Your task to perform on an android device: add a contact in the contacts app Image 0: 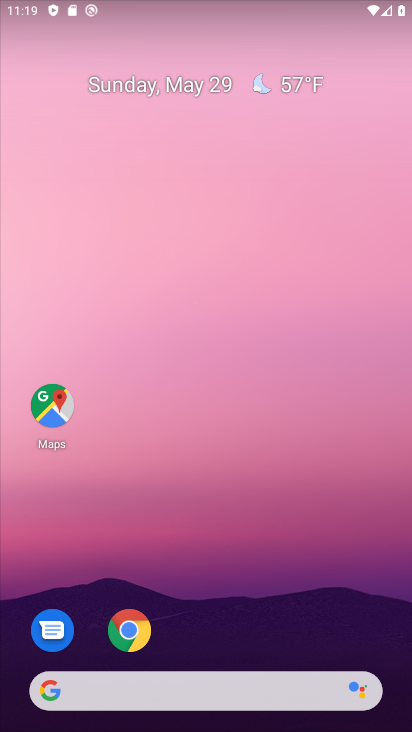
Step 0: drag from (245, 716) to (169, 147)
Your task to perform on an android device: add a contact in the contacts app Image 1: 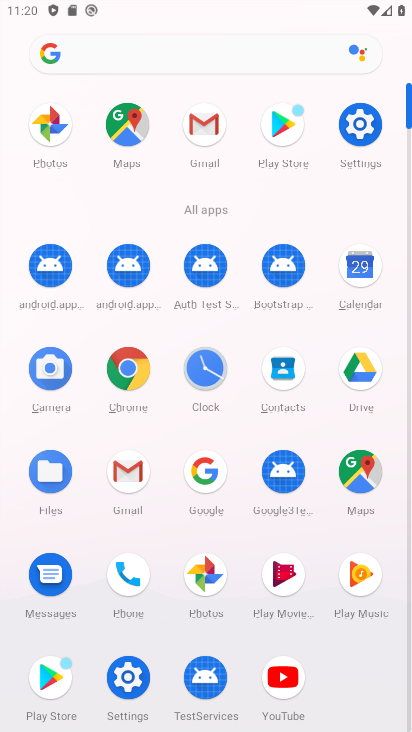
Step 1: click (124, 586)
Your task to perform on an android device: add a contact in the contacts app Image 2: 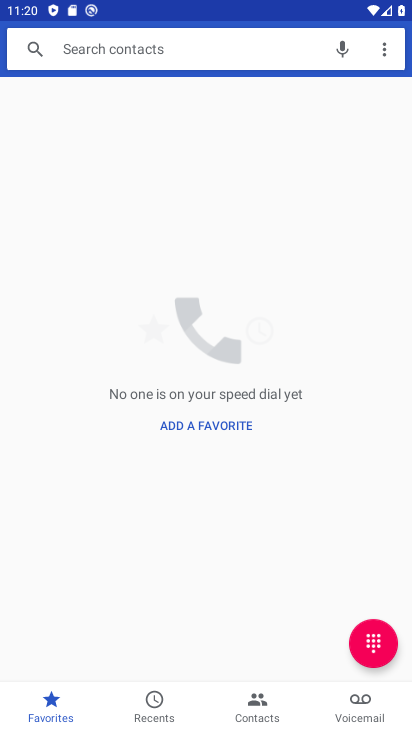
Step 2: click (249, 702)
Your task to perform on an android device: add a contact in the contacts app Image 3: 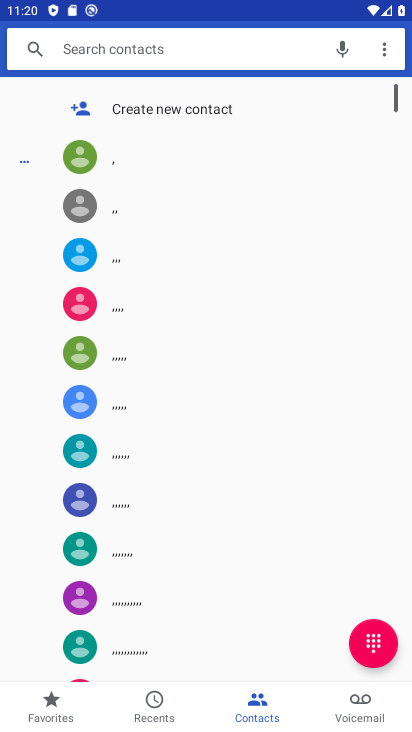
Step 3: click (125, 345)
Your task to perform on an android device: add a contact in the contacts app Image 4: 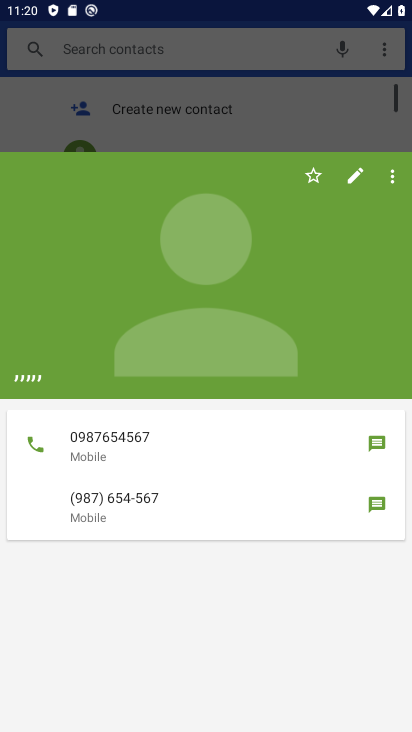
Step 4: press home button
Your task to perform on an android device: add a contact in the contacts app Image 5: 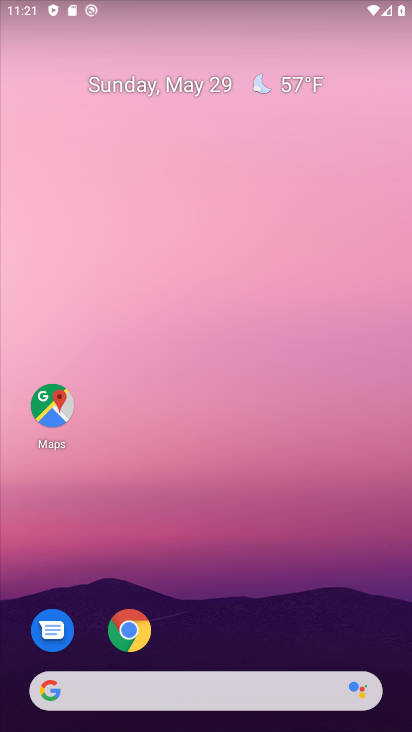
Step 5: drag from (184, 709) to (94, 170)
Your task to perform on an android device: add a contact in the contacts app Image 6: 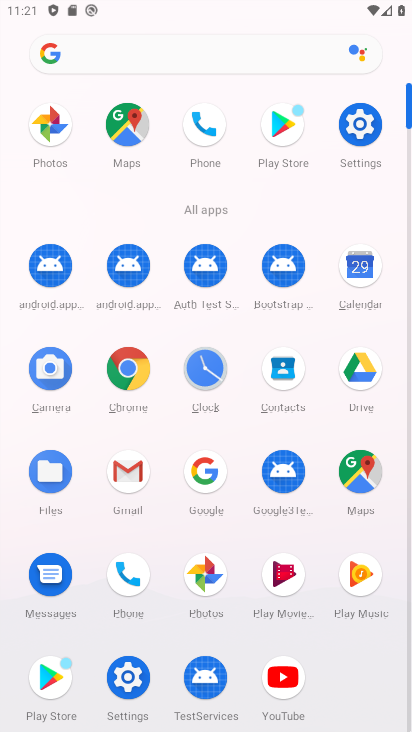
Step 6: click (204, 140)
Your task to perform on an android device: add a contact in the contacts app Image 7: 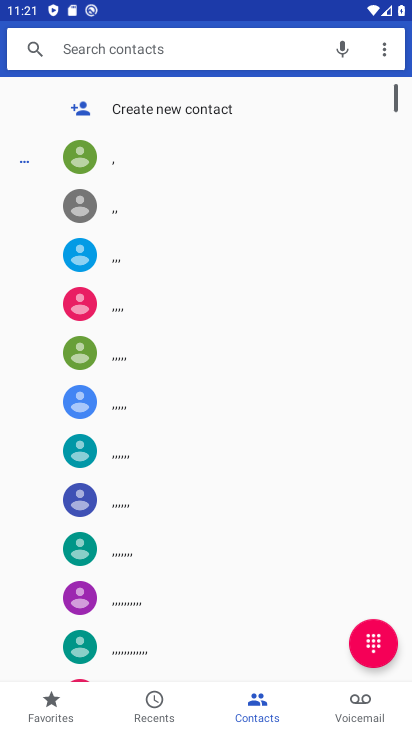
Step 7: click (151, 113)
Your task to perform on an android device: add a contact in the contacts app Image 8: 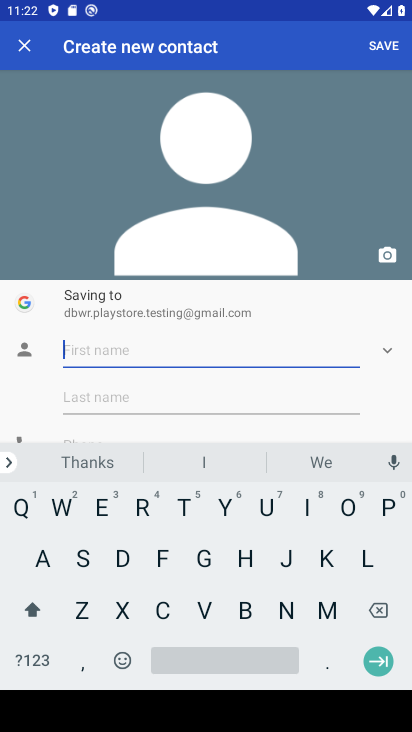
Step 8: click (207, 525)
Your task to perform on an android device: add a contact in the contacts app Image 9: 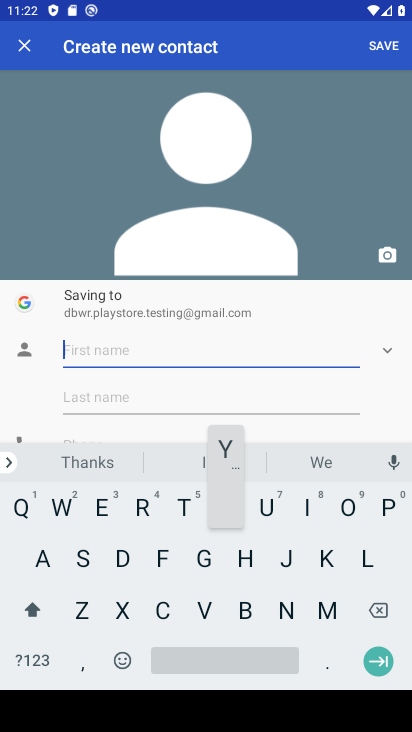
Step 9: click (180, 559)
Your task to perform on an android device: add a contact in the contacts app Image 10: 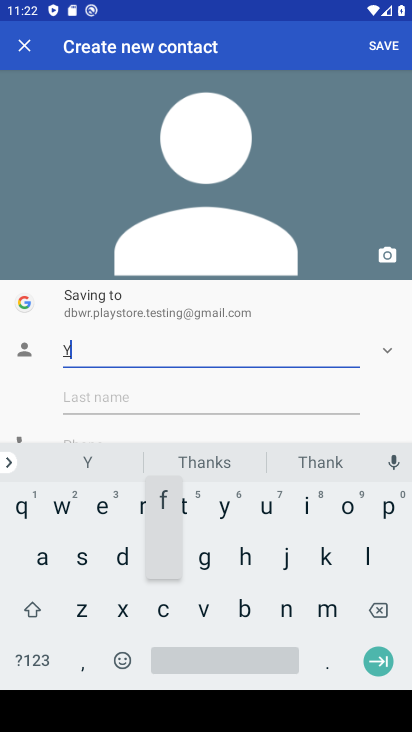
Step 10: click (129, 546)
Your task to perform on an android device: add a contact in the contacts app Image 11: 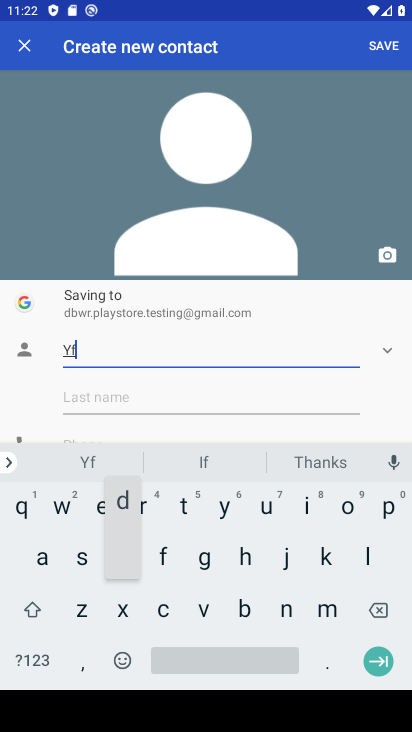
Step 11: click (120, 555)
Your task to perform on an android device: add a contact in the contacts app Image 12: 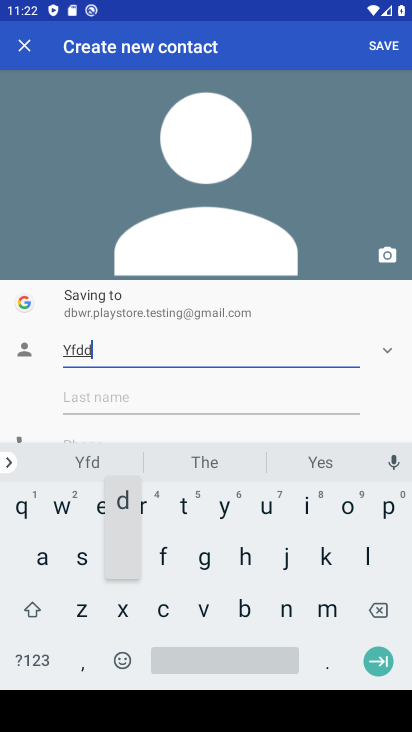
Step 12: click (85, 570)
Your task to perform on an android device: add a contact in the contacts app Image 13: 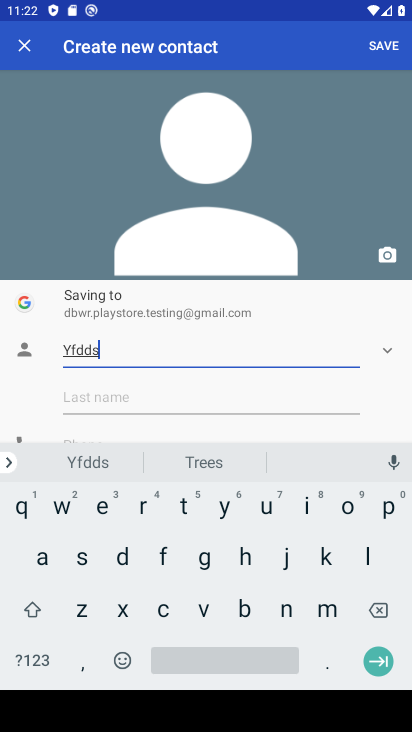
Step 13: click (124, 429)
Your task to perform on an android device: add a contact in the contacts app Image 14: 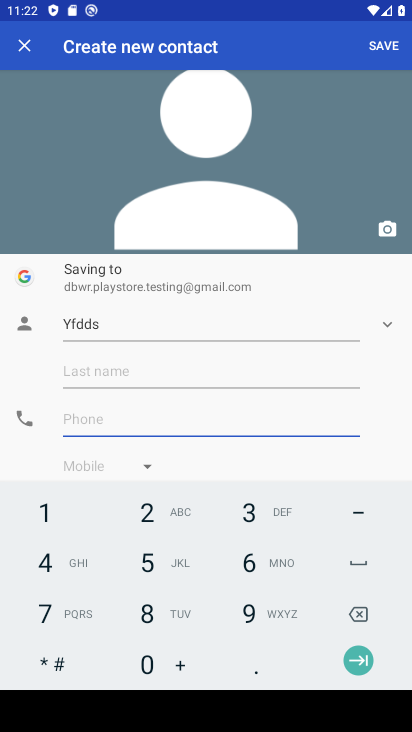
Step 14: click (210, 533)
Your task to perform on an android device: add a contact in the contacts app Image 15: 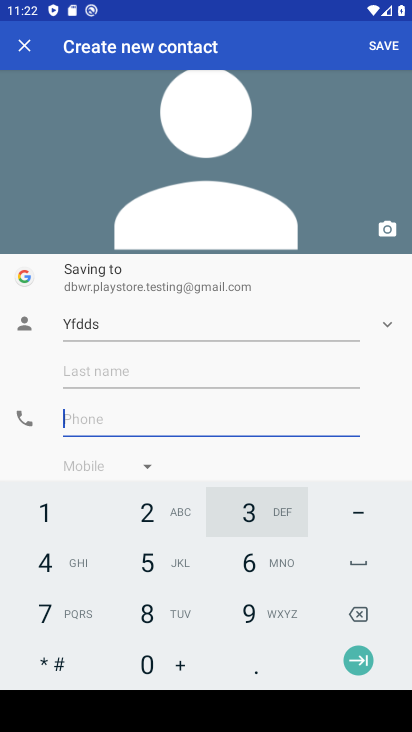
Step 15: click (153, 561)
Your task to perform on an android device: add a contact in the contacts app Image 16: 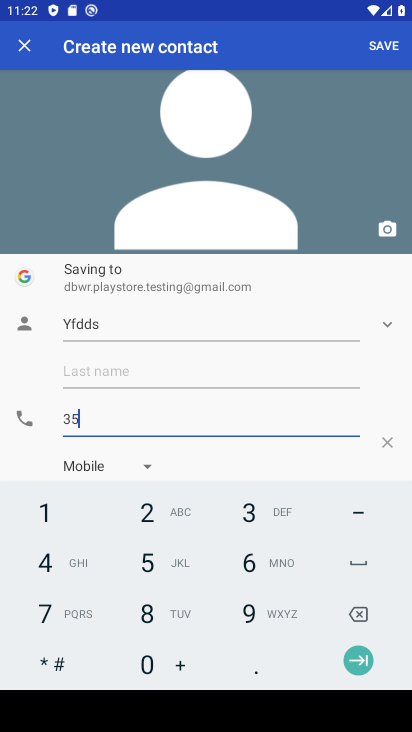
Step 16: click (73, 554)
Your task to perform on an android device: add a contact in the contacts app Image 17: 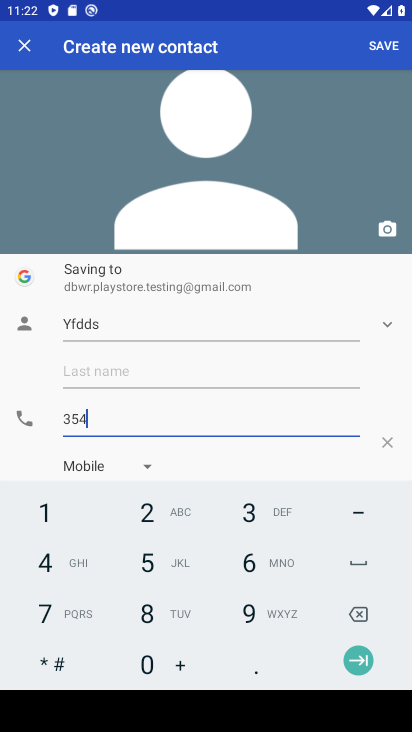
Step 17: click (146, 619)
Your task to perform on an android device: add a contact in the contacts app Image 18: 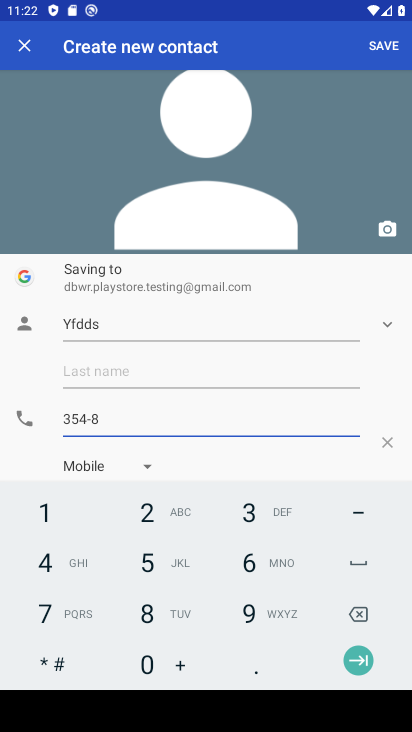
Step 18: click (262, 566)
Your task to perform on an android device: add a contact in the contacts app Image 19: 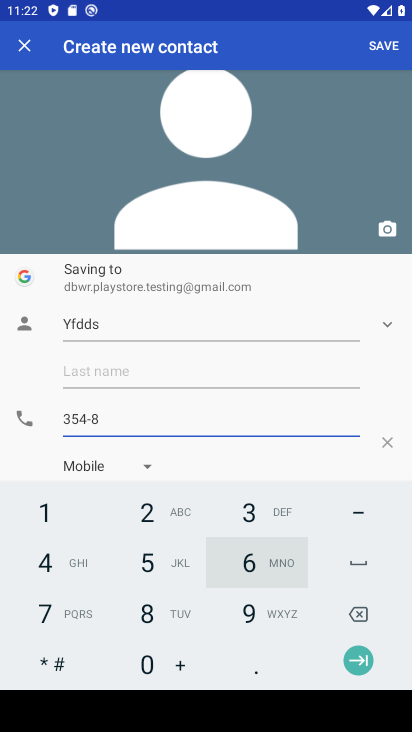
Step 19: click (191, 573)
Your task to perform on an android device: add a contact in the contacts app Image 20: 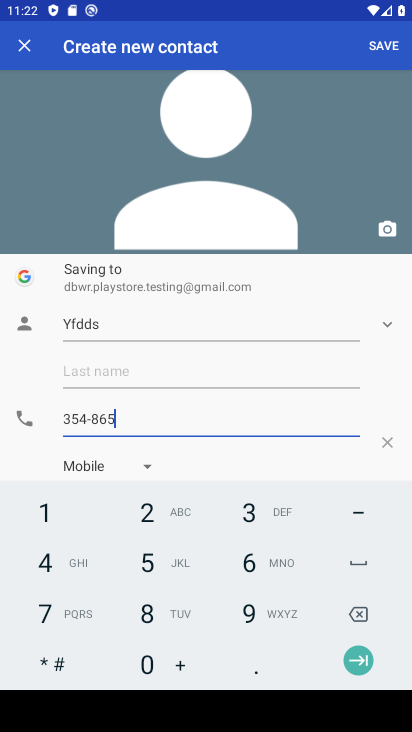
Step 20: click (370, 45)
Your task to perform on an android device: add a contact in the contacts app Image 21: 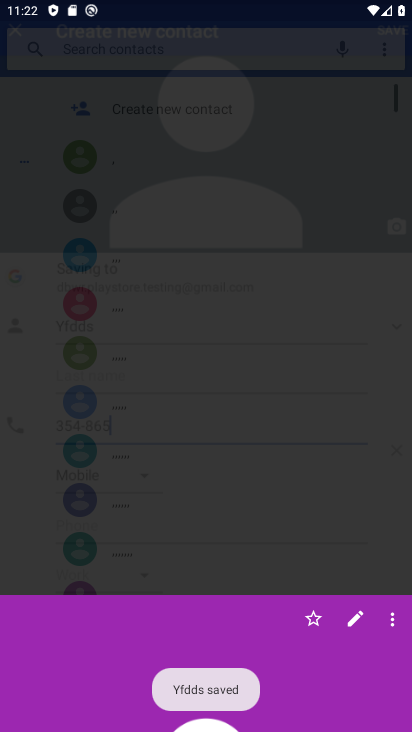
Step 21: task complete